Your task to perform on an android device: Open the map Image 0: 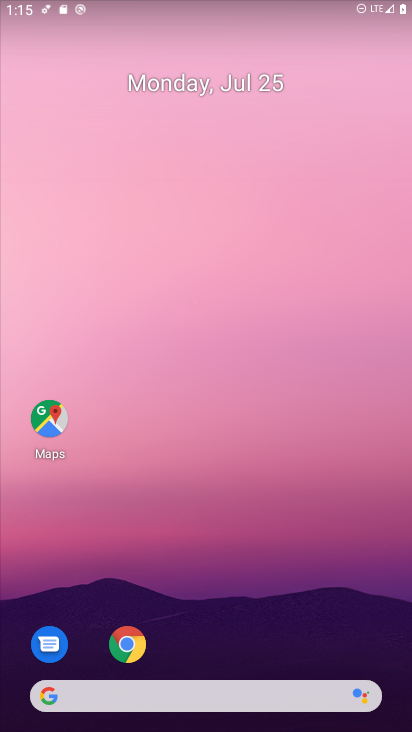
Step 0: drag from (218, 719) to (191, 277)
Your task to perform on an android device: Open the map Image 1: 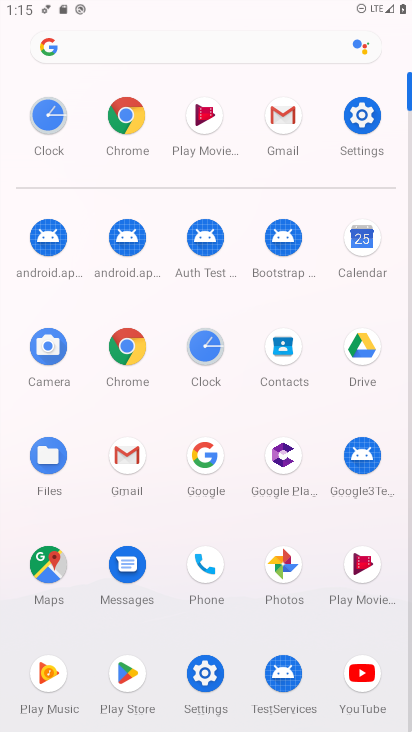
Step 1: click (45, 558)
Your task to perform on an android device: Open the map Image 2: 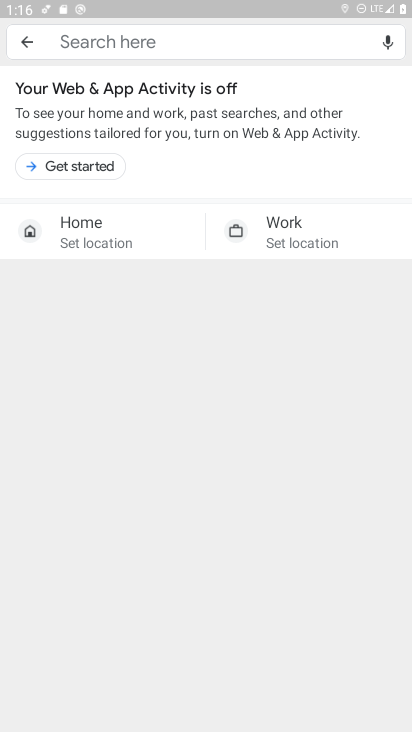
Step 2: task complete